Your task to perform on an android device: move an email to a new category in the gmail app Image 0: 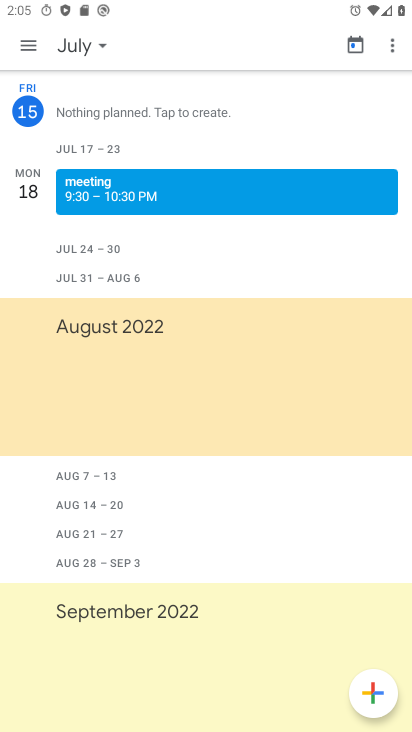
Step 0: press home button
Your task to perform on an android device: move an email to a new category in the gmail app Image 1: 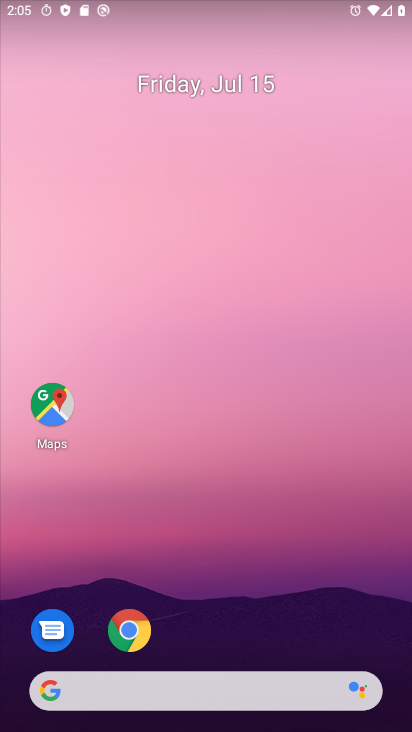
Step 1: drag from (204, 629) to (187, 301)
Your task to perform on an android device: move an email to a new category in the gmail app Image 2: 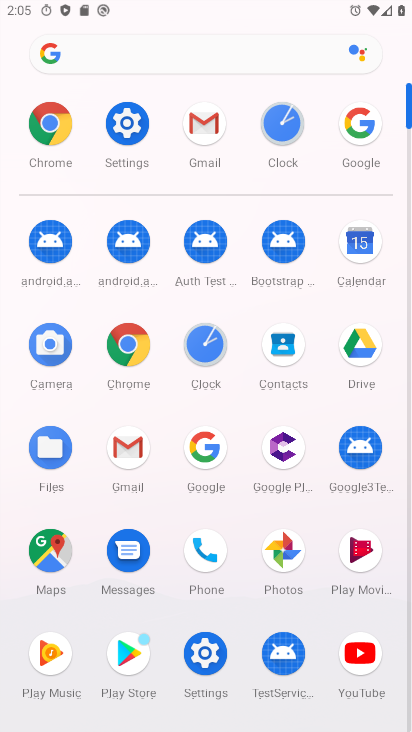
Step 2: click (210, 114)
Your task to perform on an android device: move an email to a new category in the gmail app Image 3: 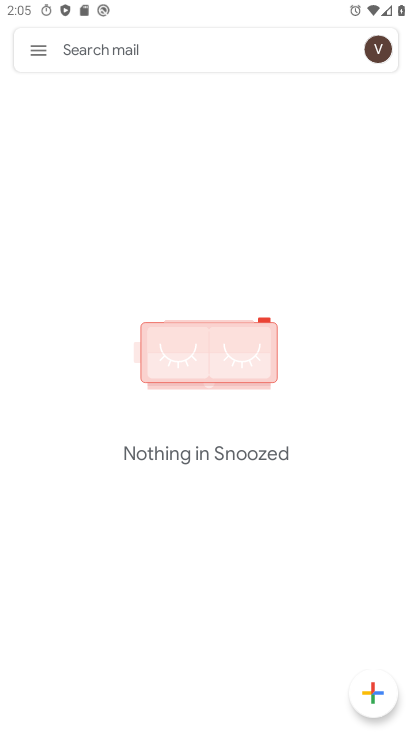
Step 3: click (46, 54)
Your task to perform on an android device: move an email to a new category in the gmail app Image 4: 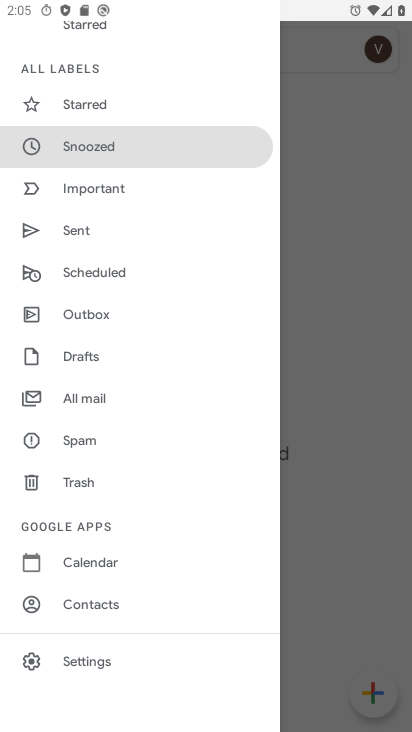
Step 4: click (98, 403)
Your task to perform on an android device: move an email to a new category in the gmail app Image 5: 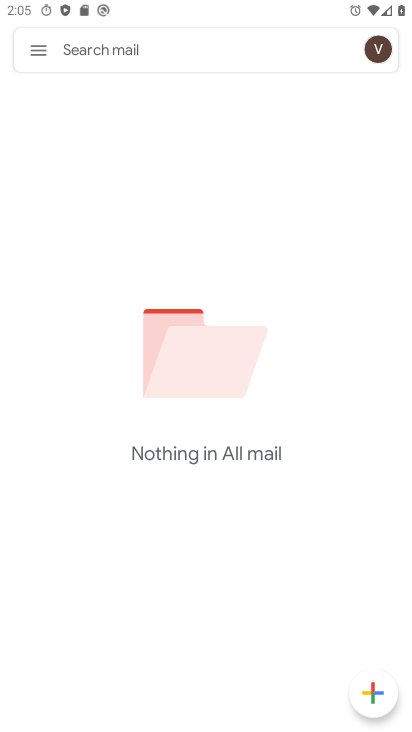
Step 5: task complete